Your task to perform on an android device: empty trash in the gmail app Image 0: 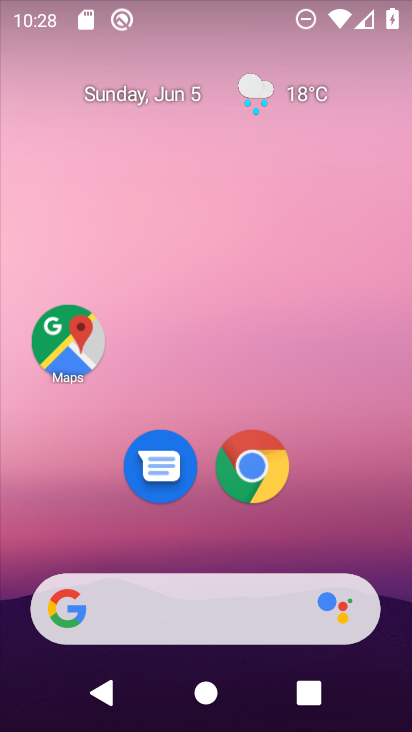
Step 0: drag from (310, 469) to (230, 34)
Your task to perform on an android device: empty trash in the gmail app Image 1: 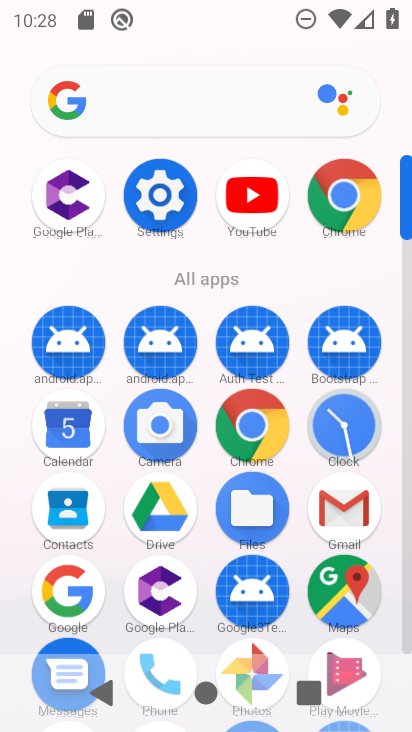
Step 1: drag from (7, 572) to (19, 237)
Your task to perform on an android device: empty trash in the gmail app Image 2: 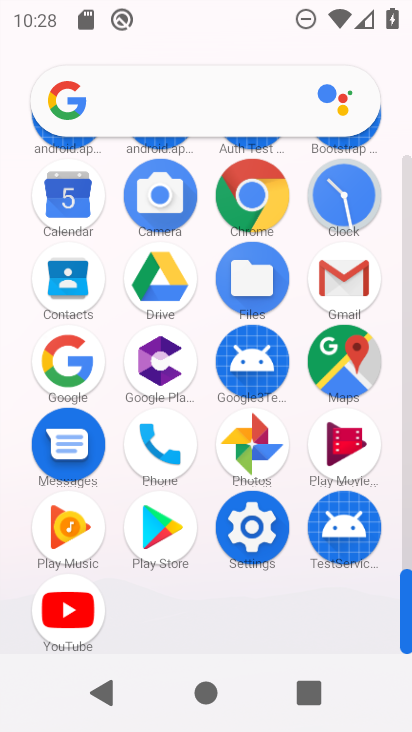
Step 2: click (342, 273)
Your task to perform on an android device: empty trash in the gmail app Image 3: 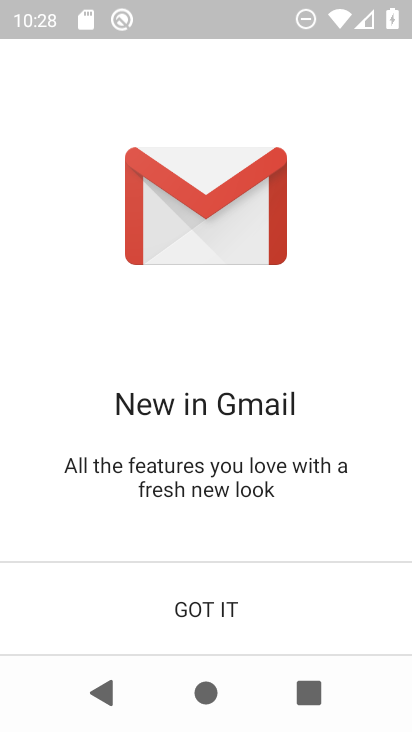
Step 3: click (175, 615)
Your task to perform on an android device: empty trash in the gmail app Image 4: 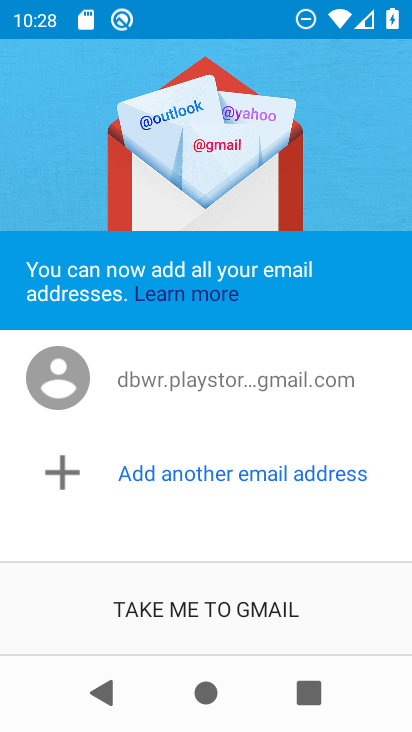
Step 4: click (203, 607)
Your task to perform on an android device: empty trash in the gmail app Image 5: 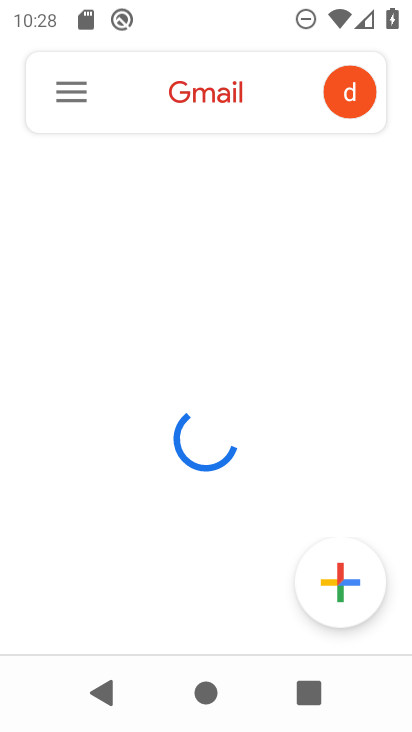
Step 5: click (65, 79)
Your task to perform on an android device: empty trash in the gmail app Image 6: 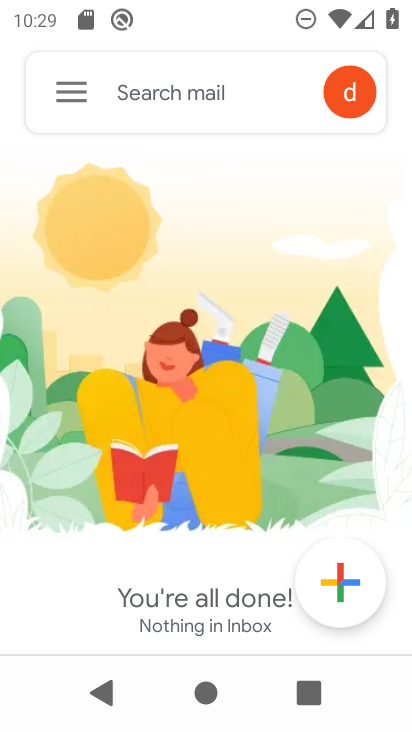
Step 6: click (57, 100)
Your task to perform on an android device: empty trash in the gmail app Image 7: 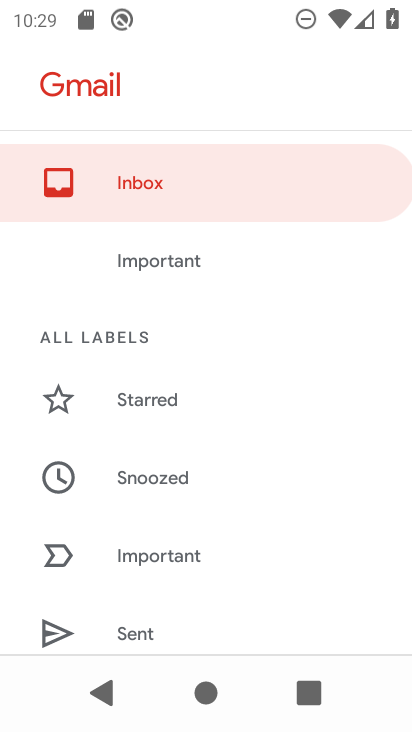
Step 7: drag from (228, 515) to (233, 153)
Your task to perform on an android device: empty trash in the gmail app Image 8: 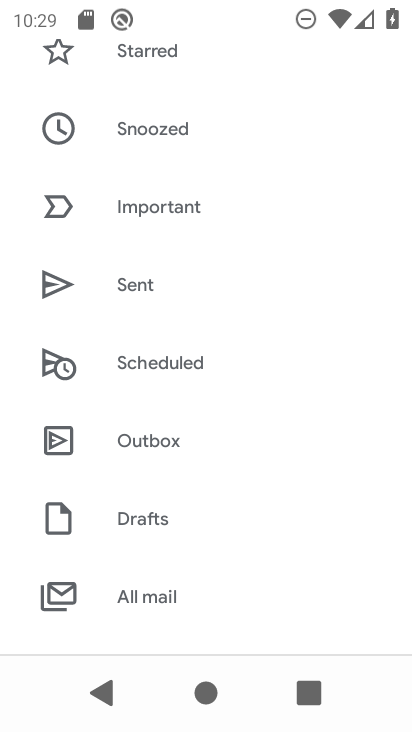
Step 8: drag from (160, 606) to (259, 134)
Your task to perform on an android device: empty trash in the gmail app Image 9: 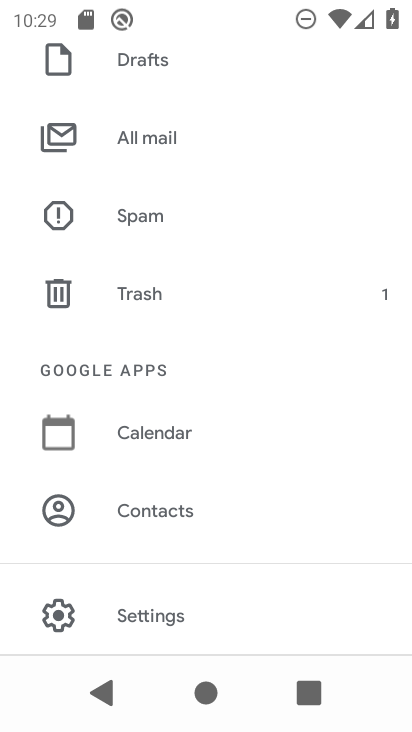
Step 9: click (155, 281)
Your task to perform on an android device: empty trash in the gmail app Image 10: 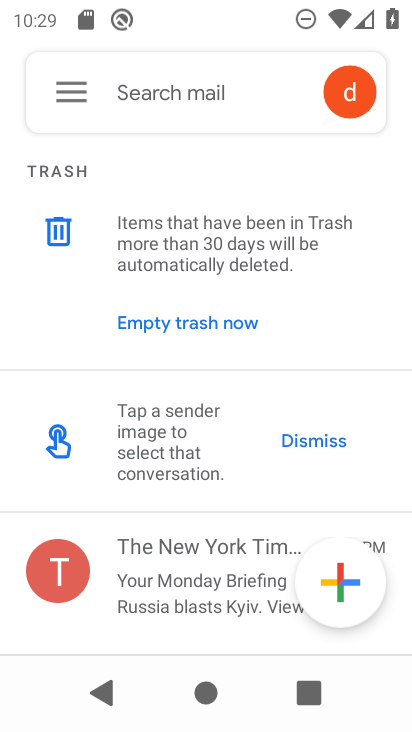
Step 10: task complete